Your task to perform on an android device: open app "Firefox Browser" (install if not already installed) Image 0: 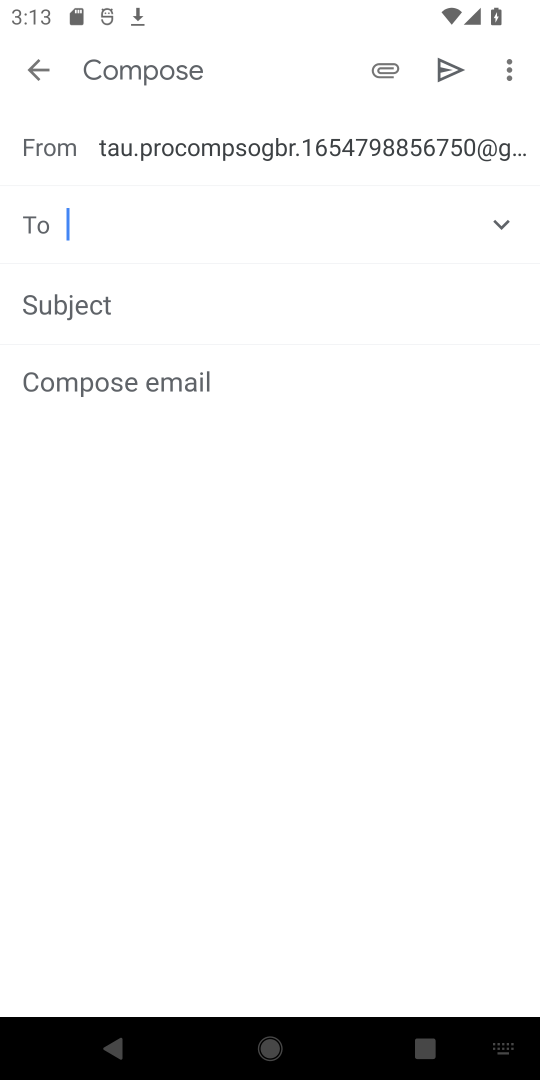
Step 0: press home button
Your task to perform on an android device: open app "Firefox Browser" (install if not already installed) Image 1: 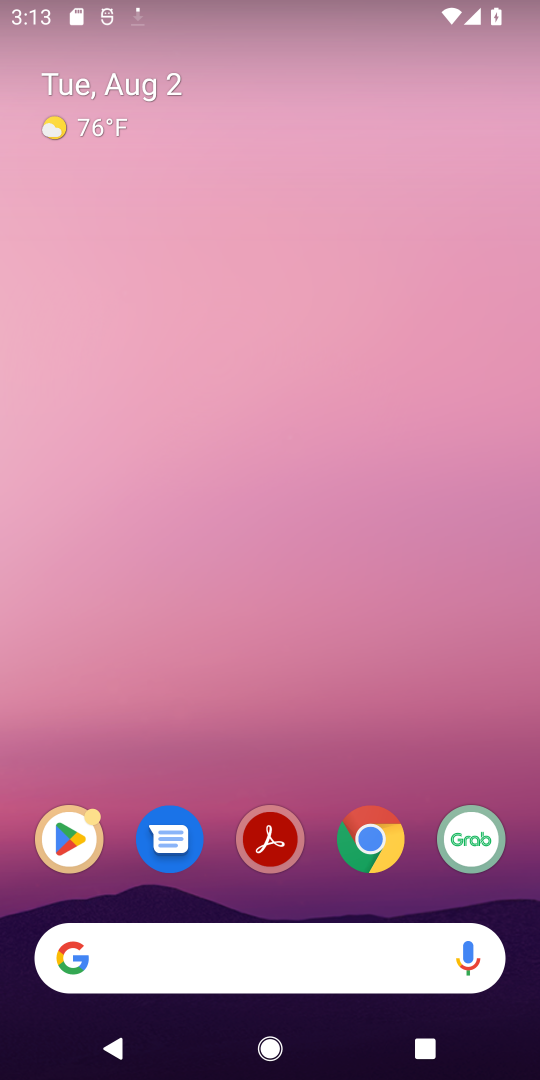
Step 1: click (57, 843)
Your task to perform on an android device: open app "Firefox Browser" (install if not already installed) Image 2: 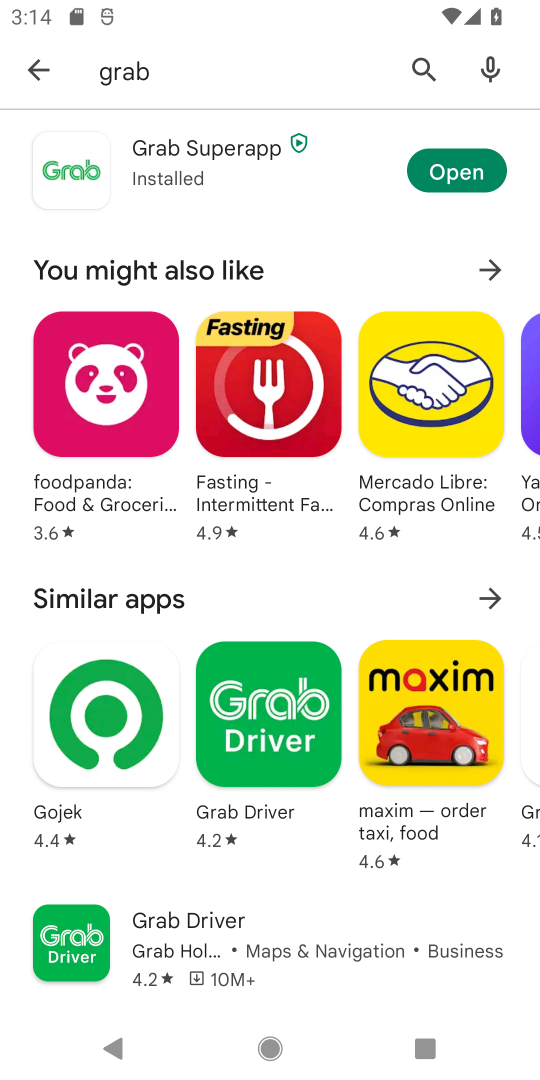
Step 2: click (422, 89)
Your task to perform on an android device: open app "Firefox Browser" (install if not already installed) Image 3: 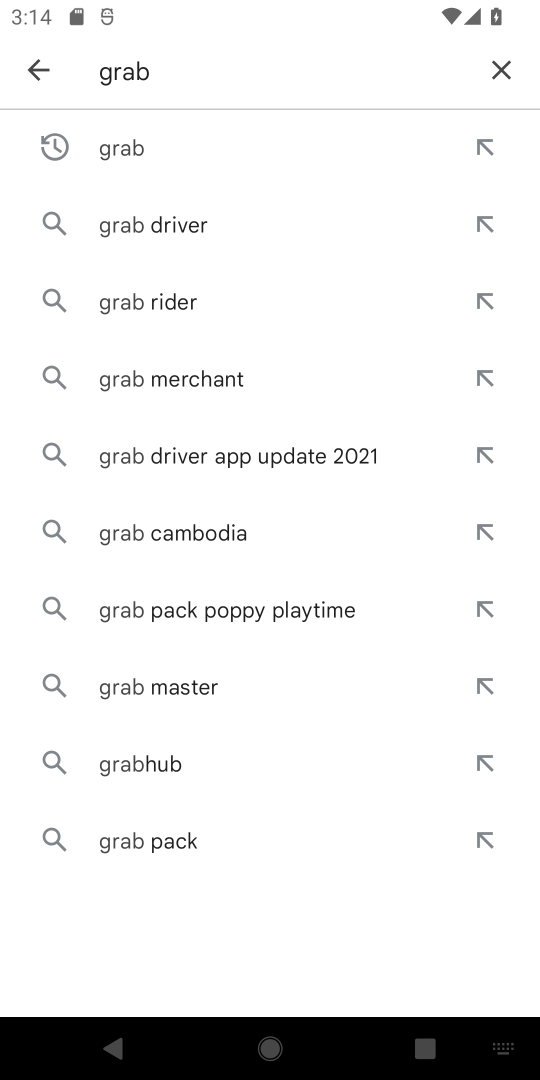
Step 3: click (482, 76)
Your task to perform on an android device: open app "Firefox Browser" (install if not already installed) Image 4: 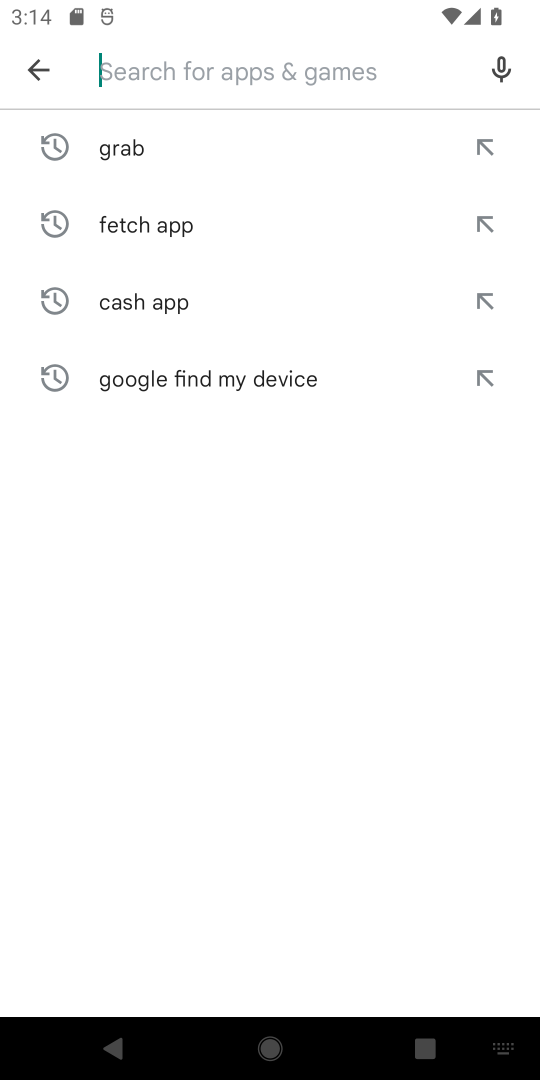
Step 4: type "firefox"
Your task to perform on an android device: open app "Firefox Browser" (install if not already installed) Image 5: 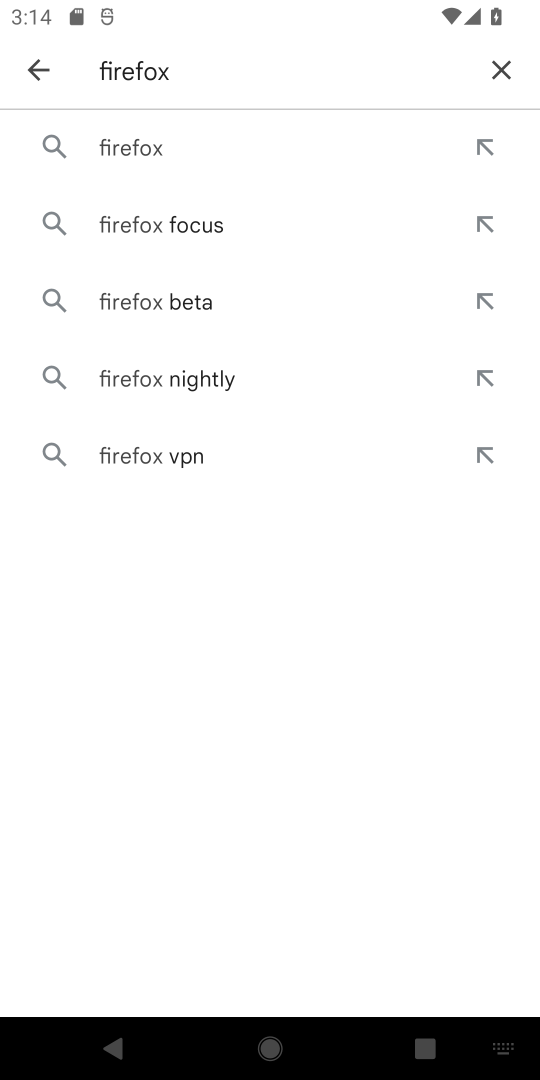
Step 5: click (263, 154)
Your task to perform on an android device: open app "Firefox Browser" (install if not already installed) Image 6: 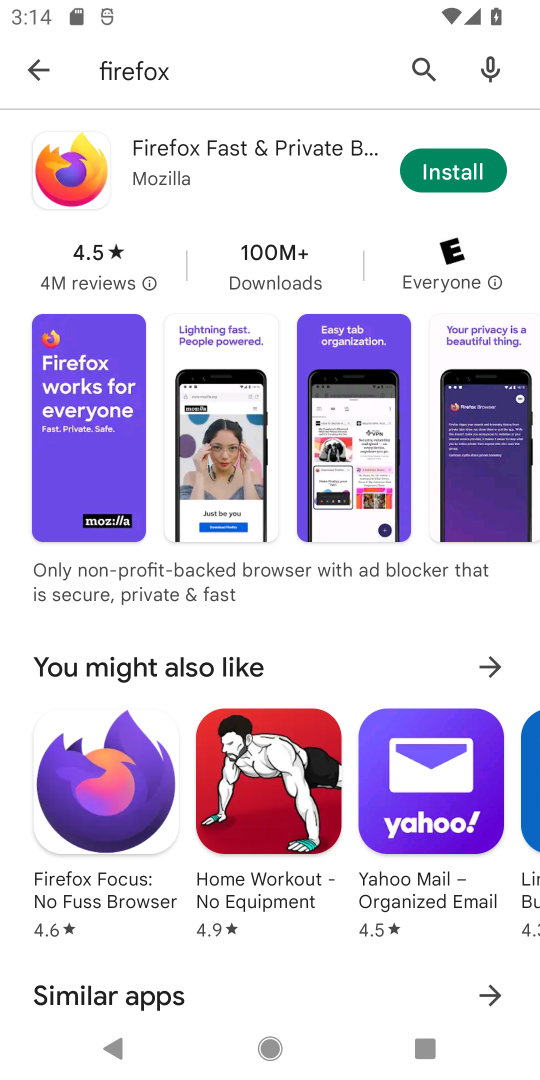
Step 6: click (476, 149)
Your task to perform on an android device: open app "Firefox Browser" (install if not already installed) Image 7: 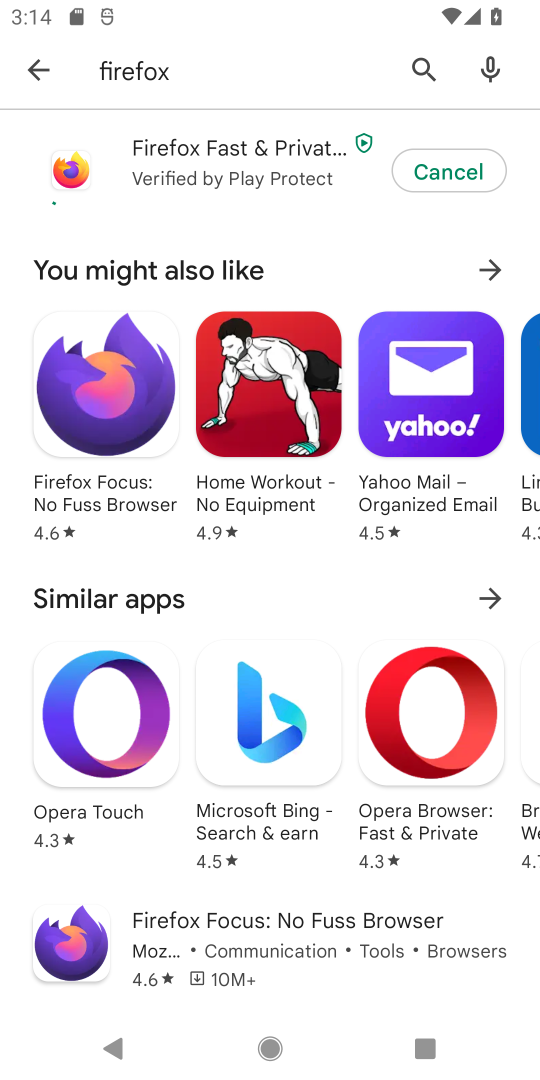
Step 7: task complete